Your task to perform on an android device: turn on the 24-hour format for clock Image 0: 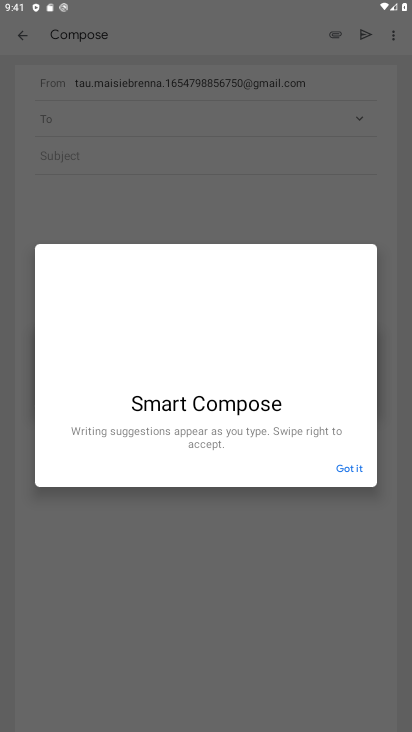
Step 0: press home button
Your task to perform on an android device: turn on the 24-hour format for clock Image 1: 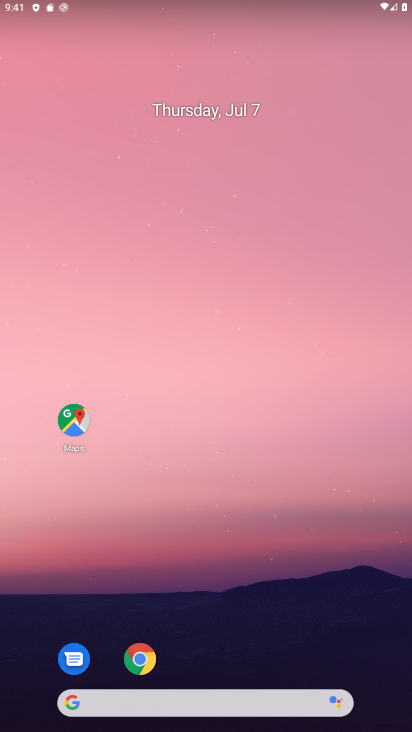
Step 1: drag from (325, 597) to (274, 176)
Your task to perform on an android device: turn on the 24-hour format for clock Image 2: 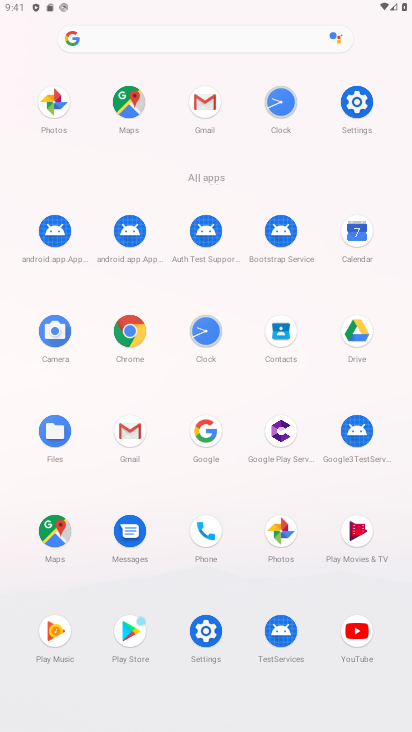
Step 2: click (280, 98)
Your task to perform on an android device: turn on the 24-hour format for clock Image 3: 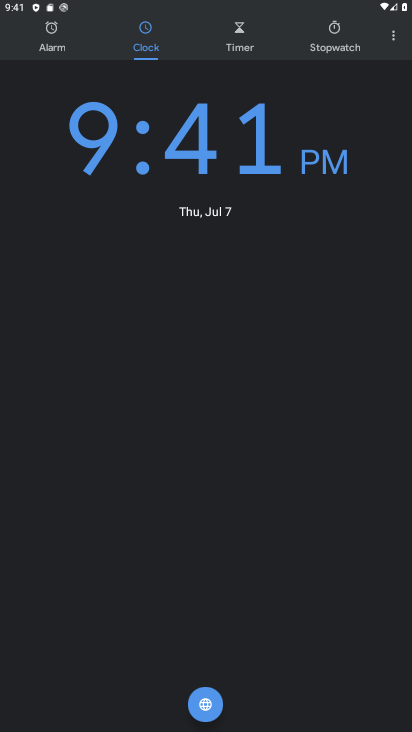
Step 3: click (396, 38)
Your task to perform on an android device: turn on the 24-hour format for clock Image 4: 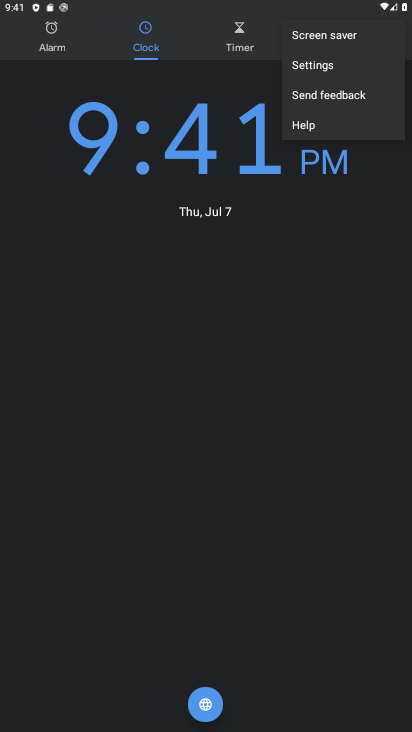
Step 4: click (326, 68)
Your task to perform on an android device: turn on the 24-hour format for clock Image 5: 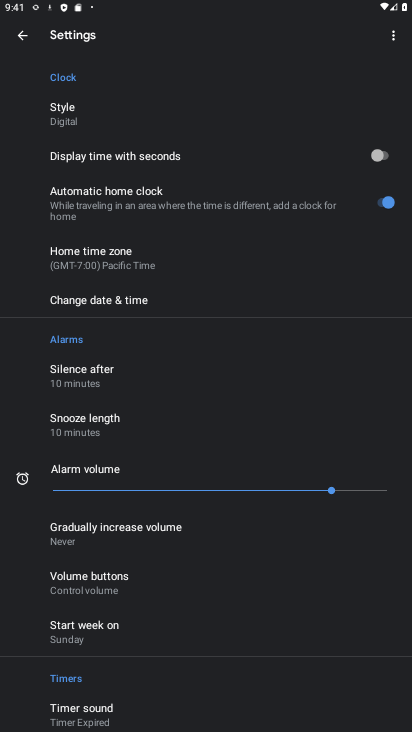
Step 5: click (141, 303)
Your task to perform on an android device: turn on the 24-hour format for clock Image 6: 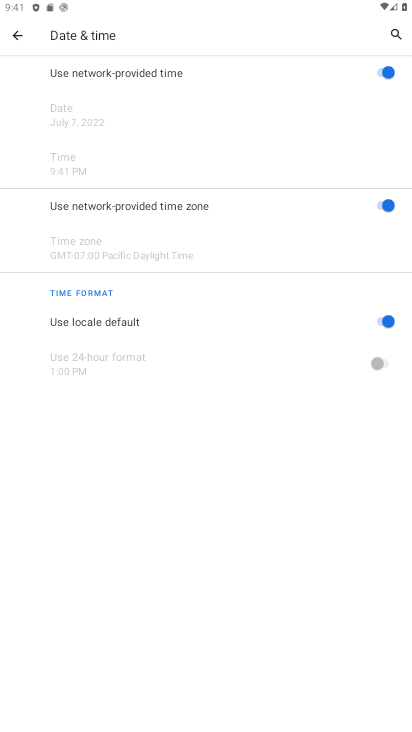
Step 6: click (382, 322)
Your task to perform on an android device: turn on the 24-hour format for clock Image 7: 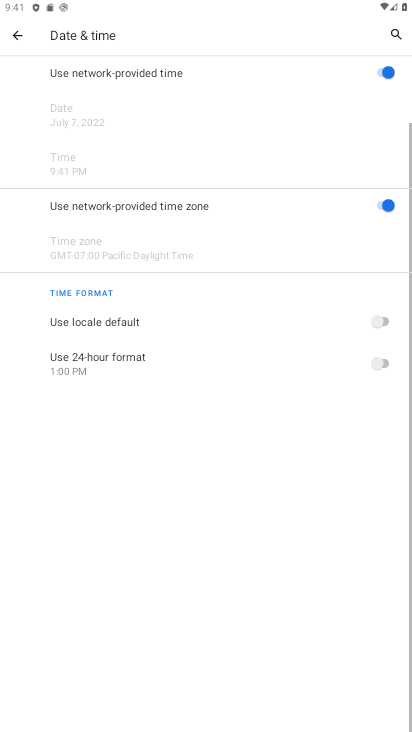
Step 7: click (382, 360)
Your task to perform on an android device: turn on the 24-hour format for clock Image 8: 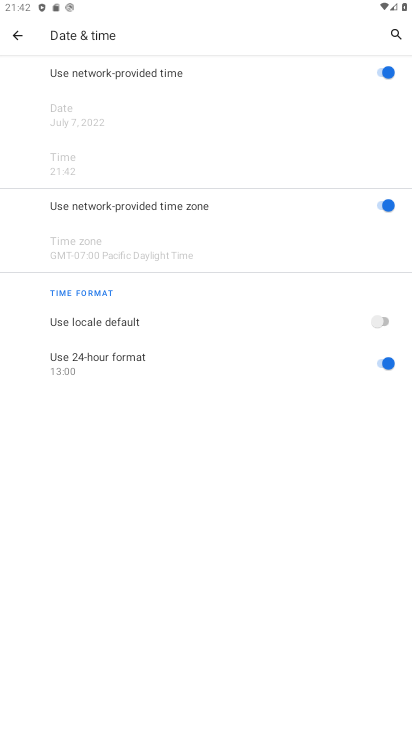
Step 8: task complete